Your task to perform on an android device: Open calendar and show me the third week of next month Image 0: 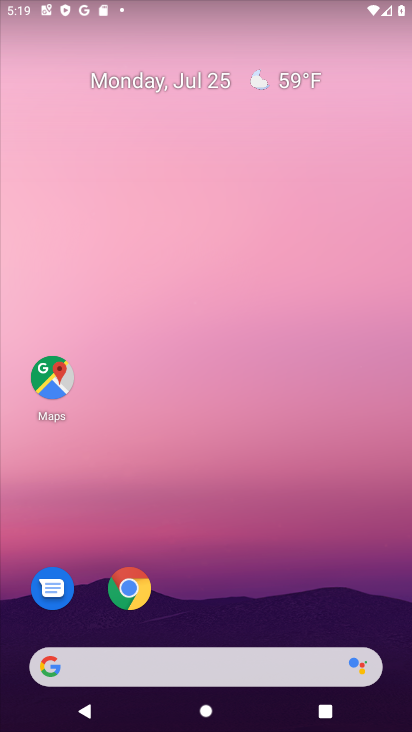
Step 0: drag from (242, 496) to (218, 111)
Your task to perform on an android device: Open calendar and show me the third week of next month Image 1: 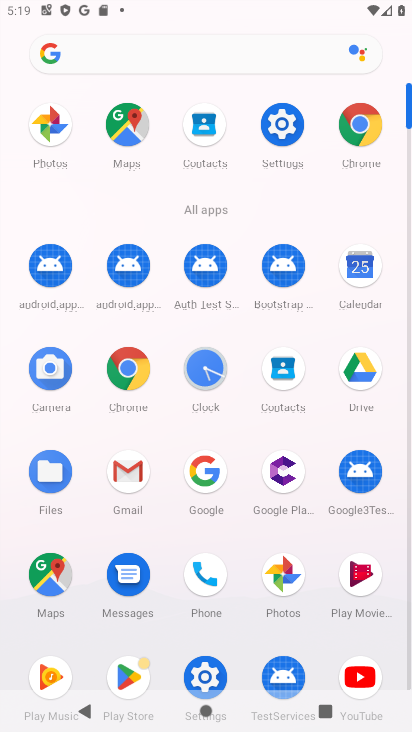
Step 1: click (362, 273)
Your task to perform on an android device: Open calendar and show me the third week of next month Image 2: 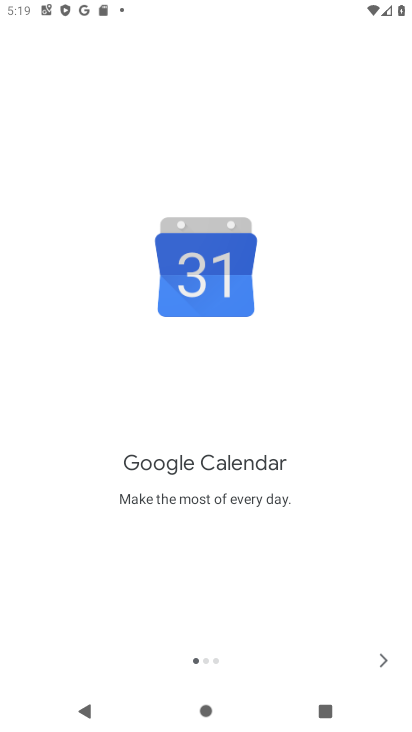
Step 2: click (381, 664)
Your task to perform on an android device: Open calendar and show me the third week of next month Image 3: 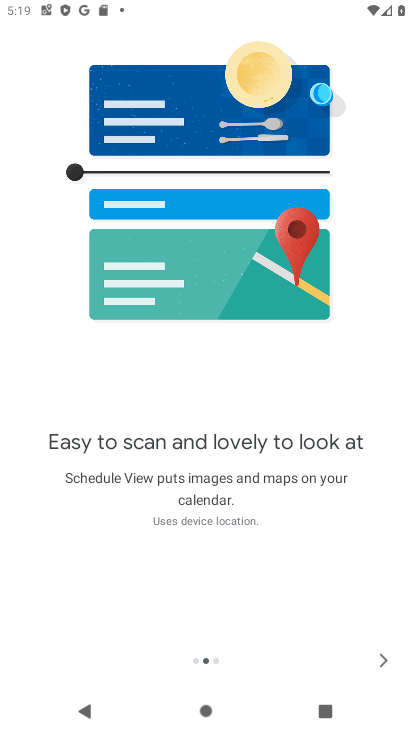
Step 3: click (381, 664)
Your task to perform on an android device: Open calendar and show me the third week of next month Image 4: 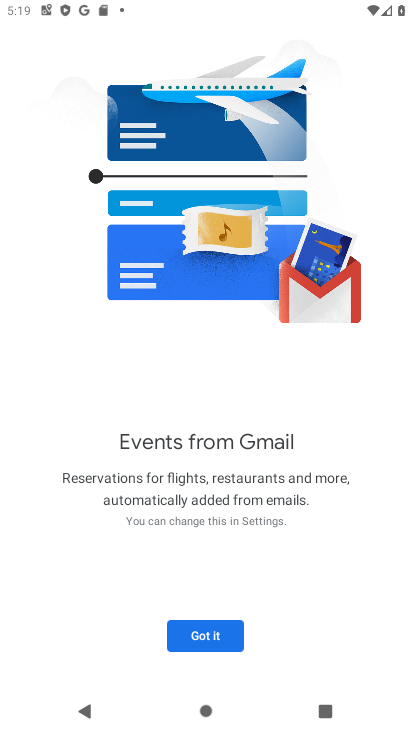
Step 4: click (381, 664)
Your task to perform on an android device: Open calendar and show me the third week of next month Image 5: 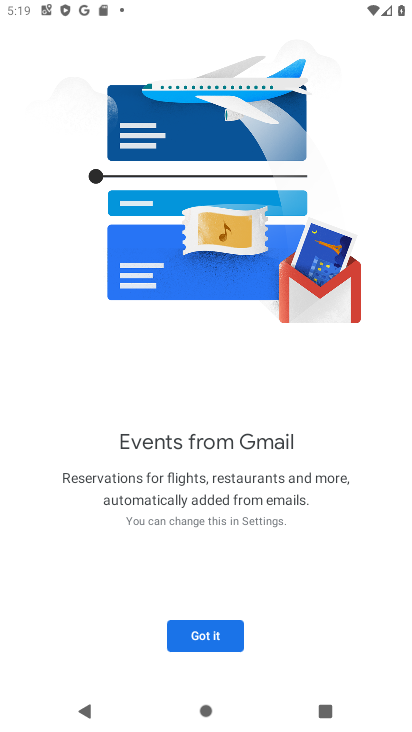
Step 5: click (218, 636)
Your task to perform on an android device: Open calendar and show me the third week of next month Image 6: 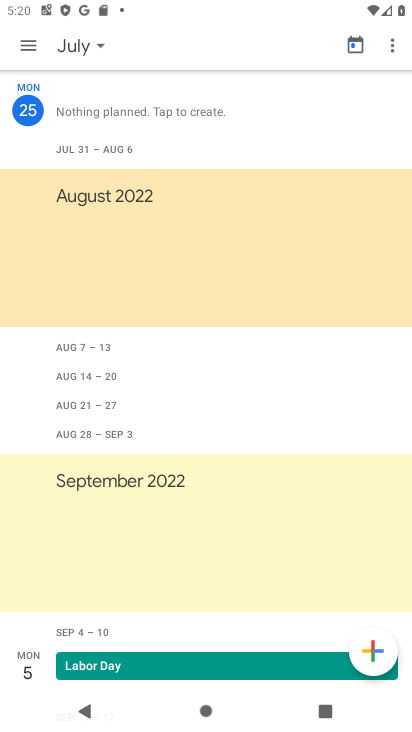
Step 6: task complete